Your task to perform on an android device: change keyboard looks Image 0: 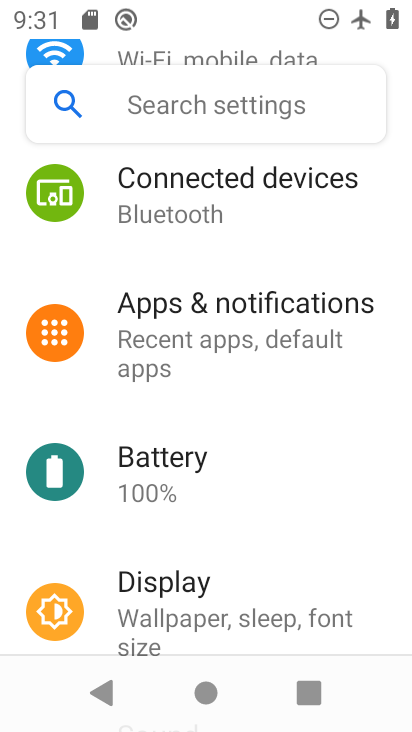
Step 0: drag from (231, 560) to (269, 95)
Your task to perform on an android device: change keyboard looks Image 1: 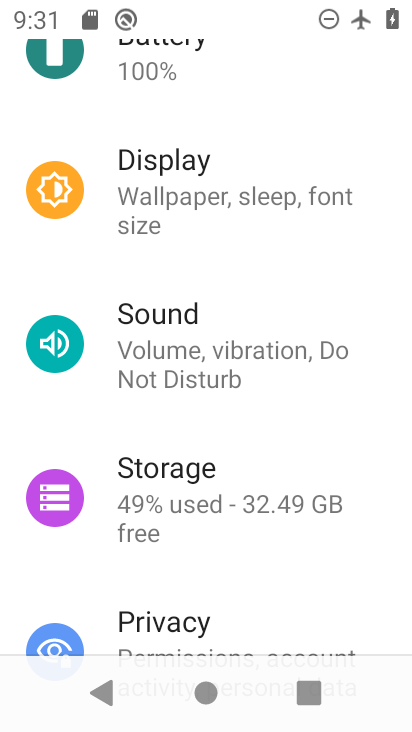
Step 1: drag from (241, 610) to (270, 134)
Your task to perform on an android device: change keyboard looks Image 2: 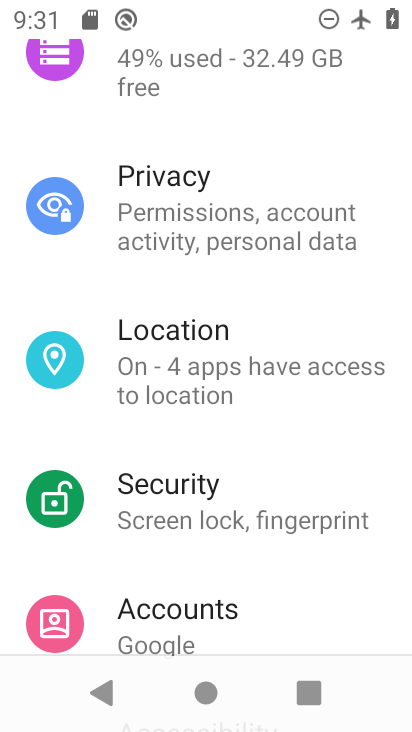
Step 2: drag from (276, 599) to (281, 186)
Your task to perform on an android device: change keyboard looks Image 3: 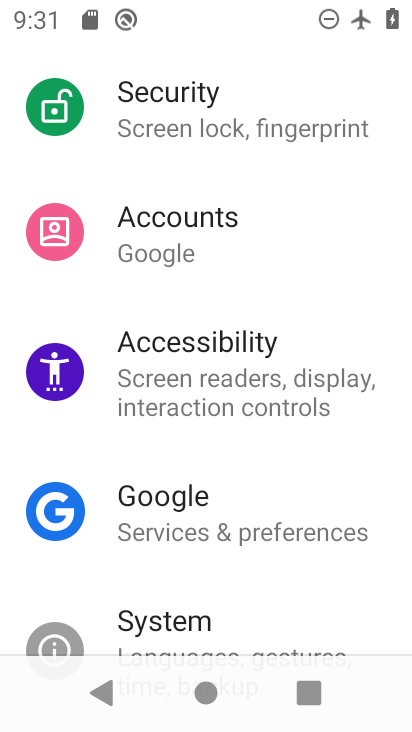
Step 3: drag from (199, 615) to (241, 245)
Your task to perform on an android device: change keyboard looks Image 4: 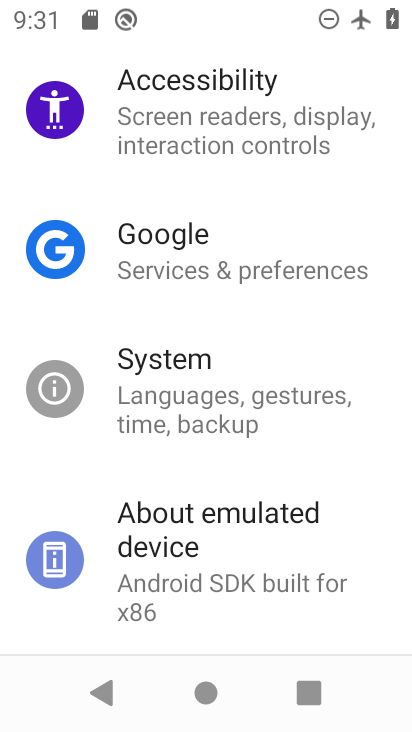
Step 4: click (252, 396)
Your task to perform on an android device: change keyboard looks Image 5: 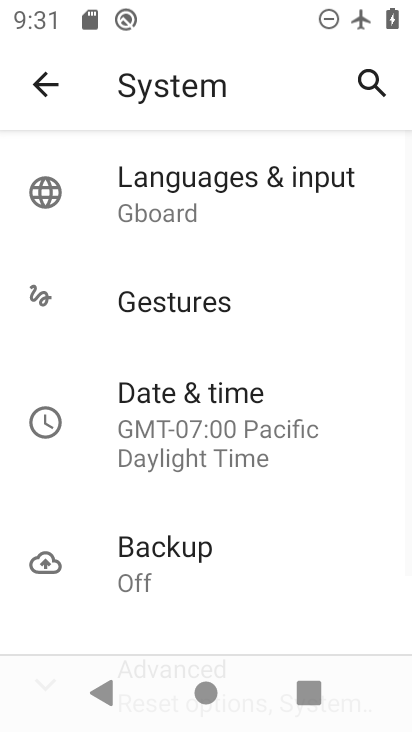
Step 5: click (217, 186)
Your task to perform on an android device: change keyboard looks Image 6: 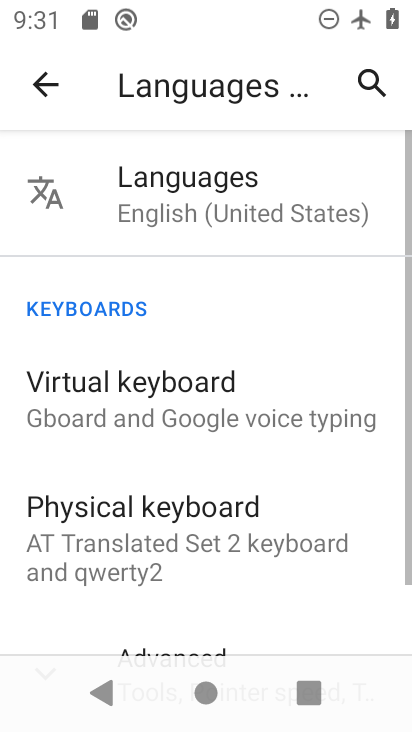
Step 6: click (213, 409)
Your task to perform on an android device: change keyboard looks Image 7: 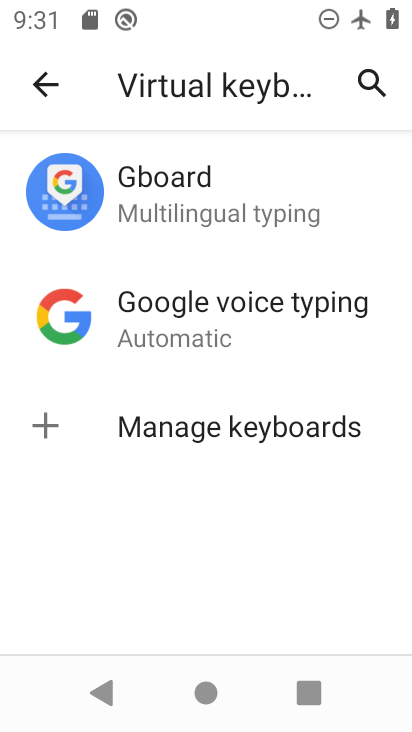
Step 7: click (201, 214)
Your task to perform on an android device: change keyboard looks Image 8: 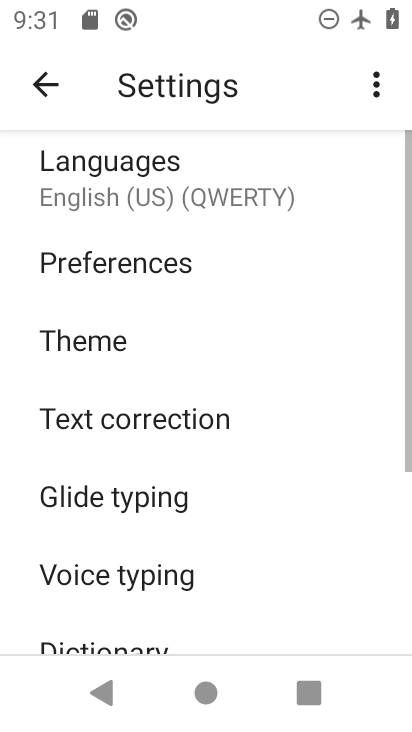
Step 8: click (165, 346)
Your task to perform on an android device: change keyboard looks Image 9: 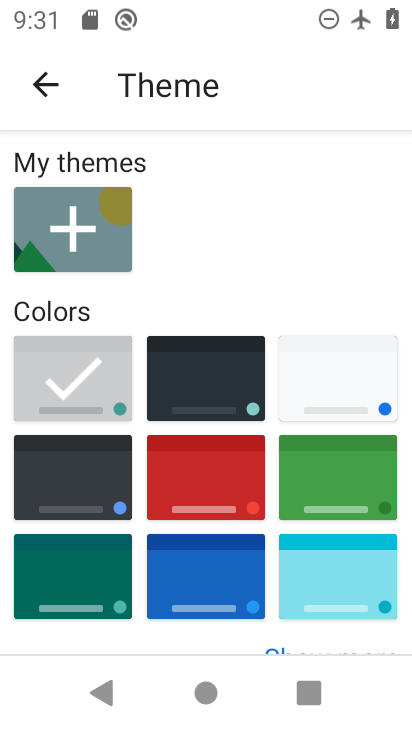
Step 9: click (251, 587)
Your task to perform on an android device: change keyboard looks Image 10: 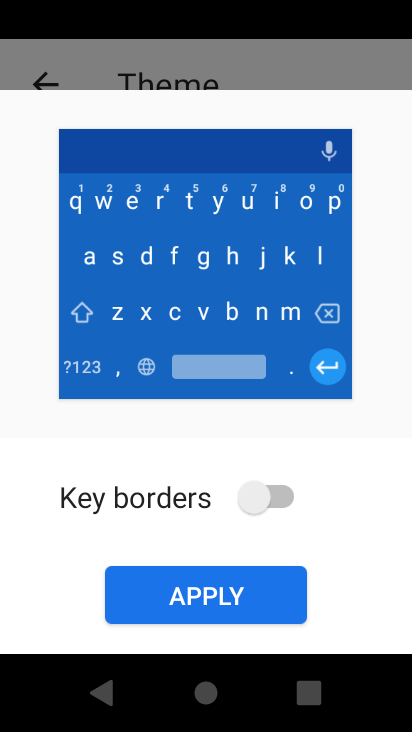
Step 10: click (222, 589)
Your task to perform on an android device: change keyboard looks Image 11: 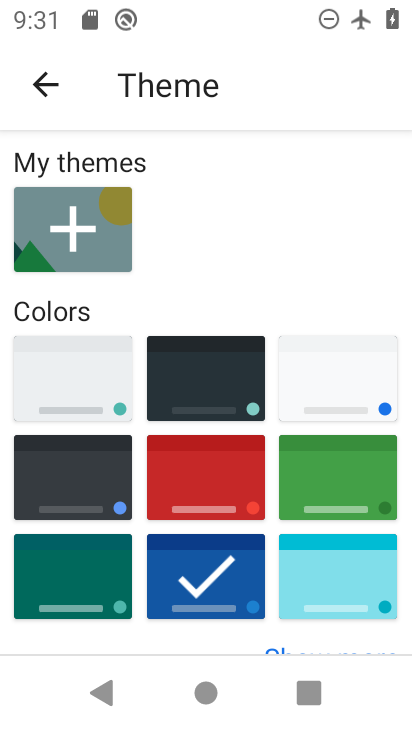
Step 11: task complete